Your task to perform on an android device: Go to Maps Image 0: 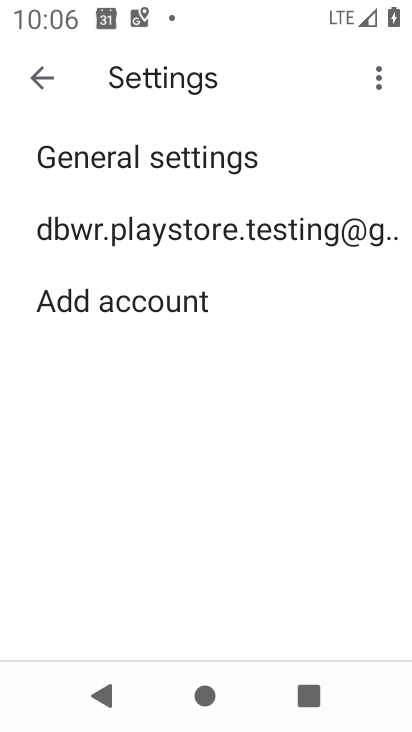
Step 0: press back button
Your task to perform on an android device: Go to Maps Image 1: 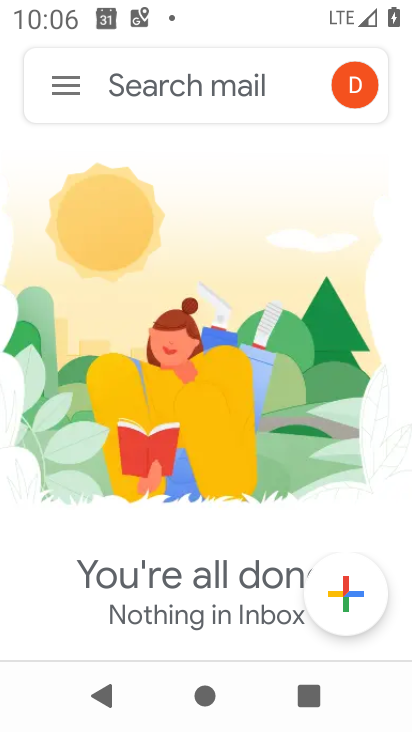
Step 1: press back button
Your task to perform on an android device: Go to Maps Image 2: 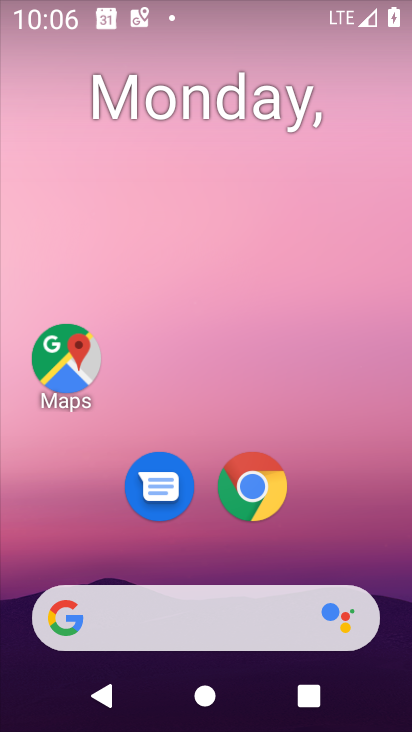
Step 2: click (66, 351)
Your task to perform on an android device: Go to Maps Image 3: 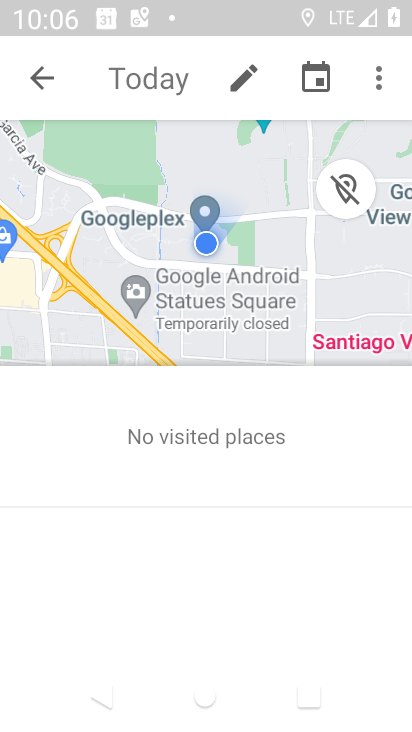
Step 3: click (42, 70)
Your task to perform on an android device: Go to Maps Image 4: 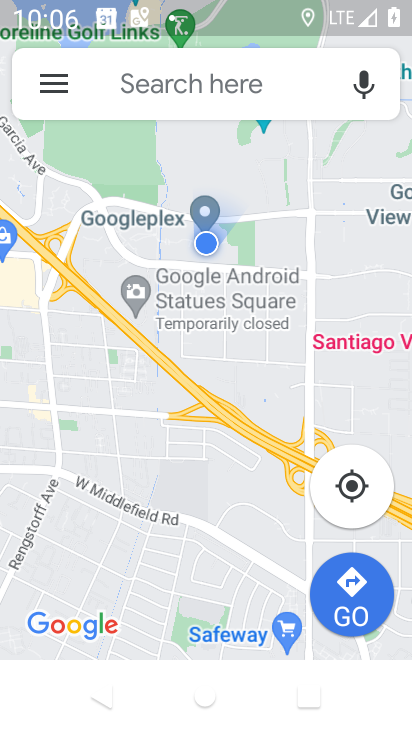
Step 4: task complete